Your task to perform on an android device: Open network settings Image 0: 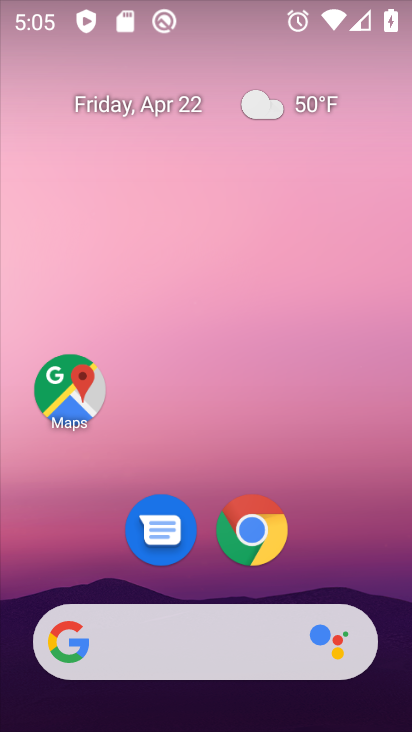
Step 0: drag from (366, 569) to (340, 100)
Your task to perform on an android device: Open network settings Image 1: 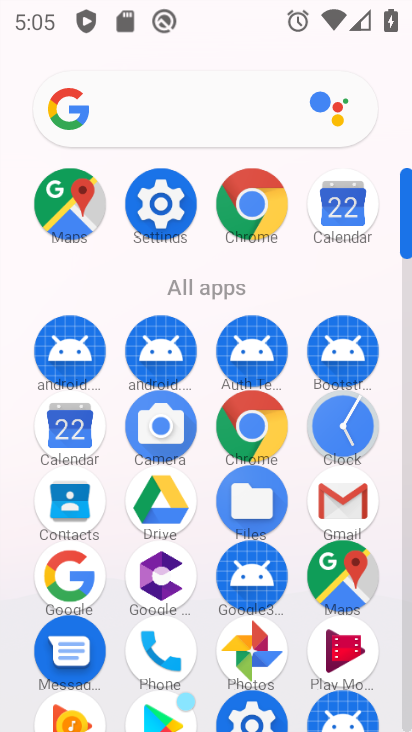
Step 1: click (146, 209)
Your task to perform on an android device: Open network settings Image 2: 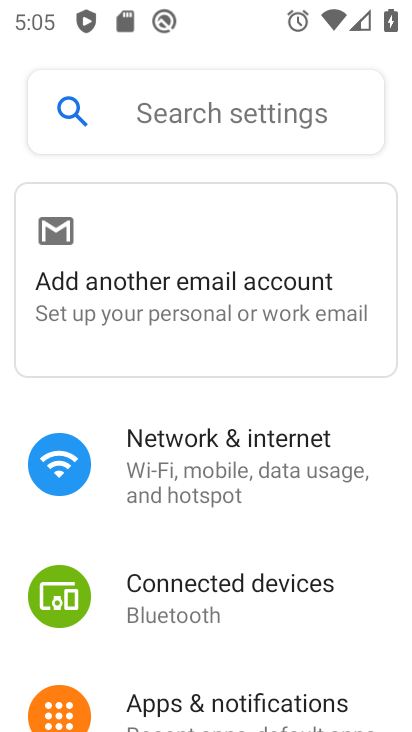
Step 2: click (213, 441)
Your task to perform on an android device: Open network settings Image 3: 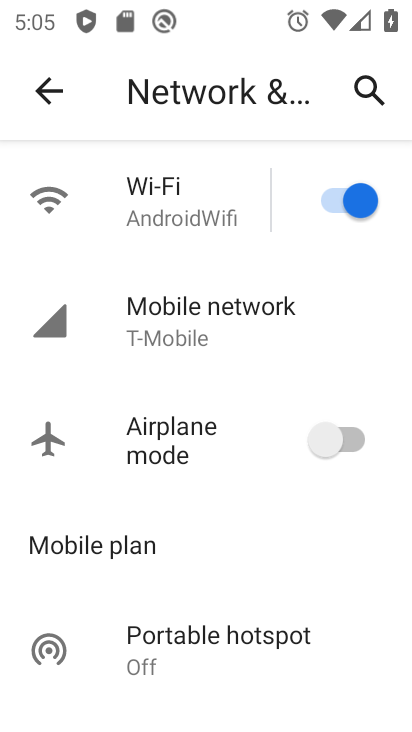
Step 3: task complete